Your task to perform on an android device: change your default location settings in chrome Image 0: 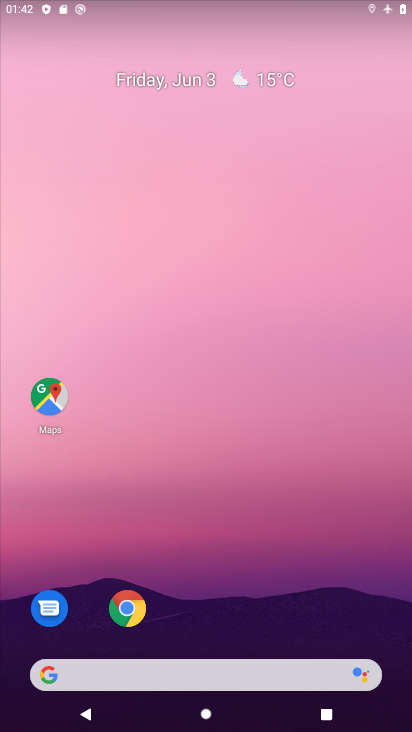
Step 0: drag from (201, 607) to (167, 133)
Your task to perform on an android device: change your default location settings in chrome Image 1: 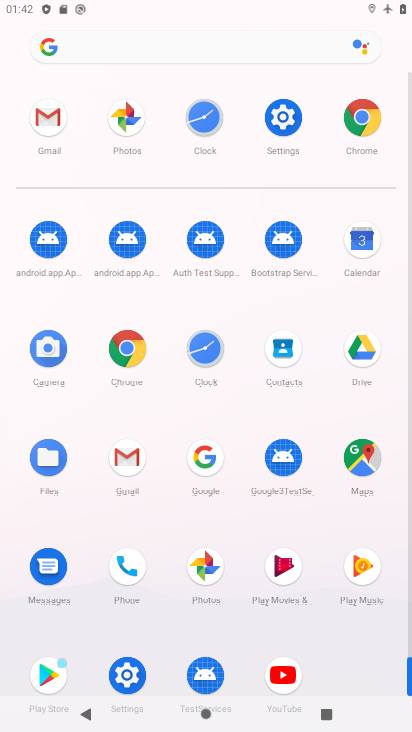
Step 1: click (134, 343)
Your task to perform on an android device: change your default location settings in chrome Image 2: 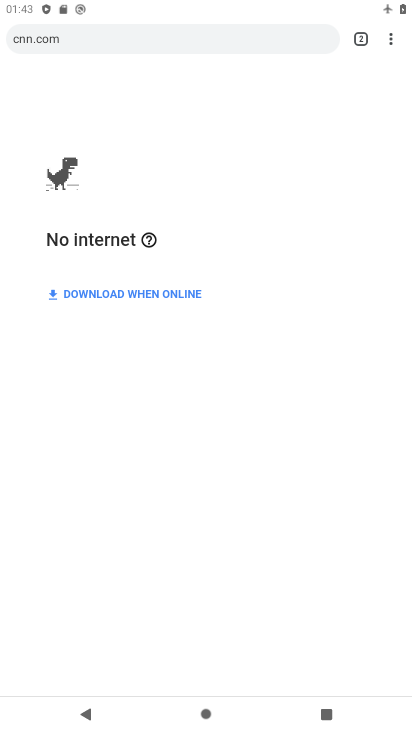
Step 2: drag from (387, 37) to (273, 477)
Your task to perform on an android device: change your default location settings in chrome Image 3: 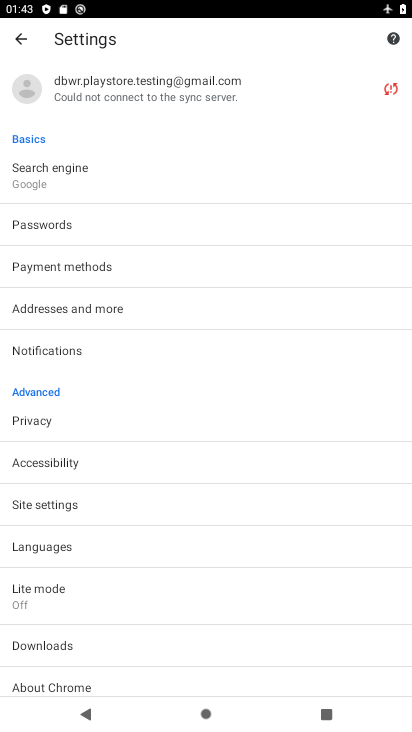
Step 3: click (89, 184)
Your task to perform on an android device: change your default location settings in chrome Image 4: 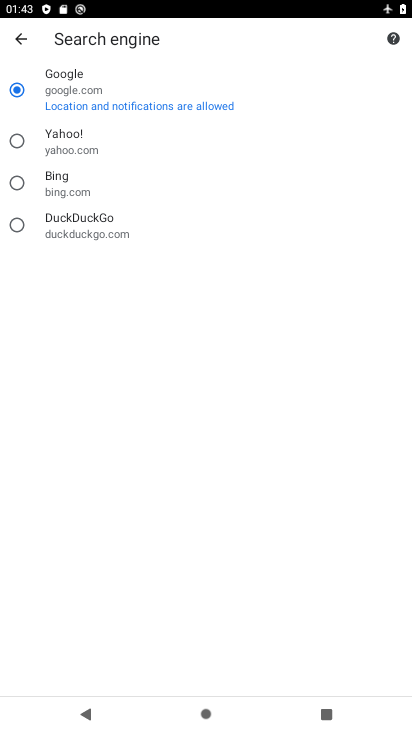
Step 4: click (22, 42)
Your task to perform on an android device: change your default location settings in chrome Image 5: 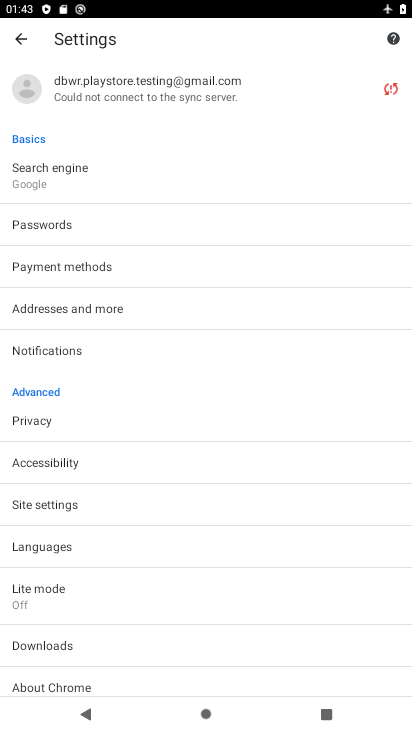
Step 5: drag from (117, 568) to (169, 298)
Your task to perform on an android device: change your default location settings in chrome Image 6: 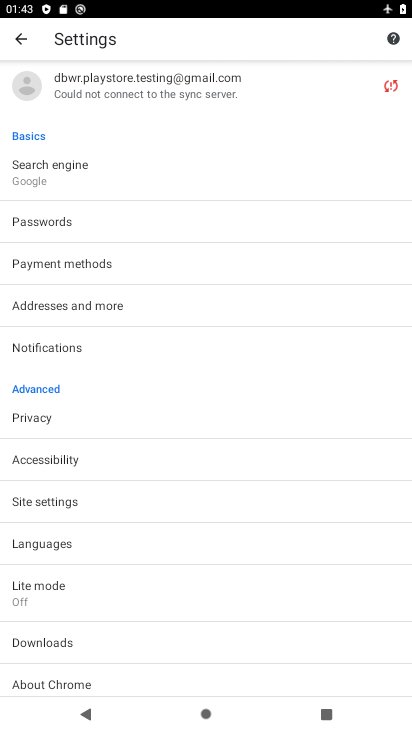
Step 6: click (71, 502)
Your task to perform on an android device: change your default location settings in chrome Image 7: 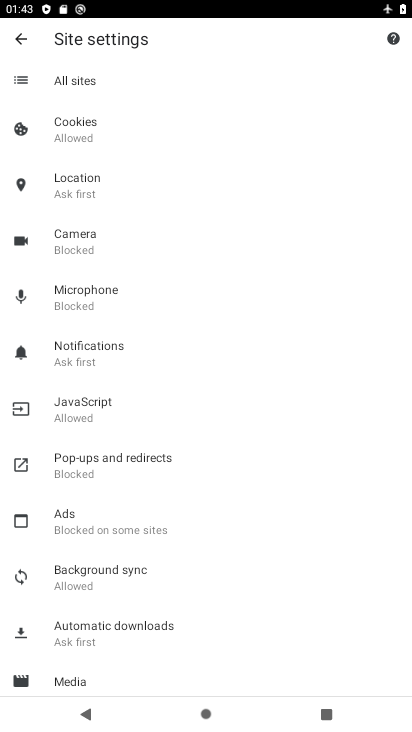
Step 7: click (88, 174)
Your task to perform on an android device: change your default location settings in chrome Image 8: 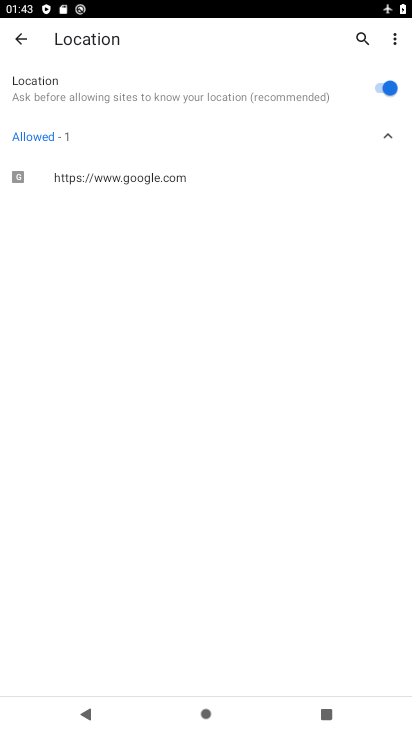
Step 8: click (366, 95)
Your task to perform on an android device: change your default location settings in chrome Image 9: 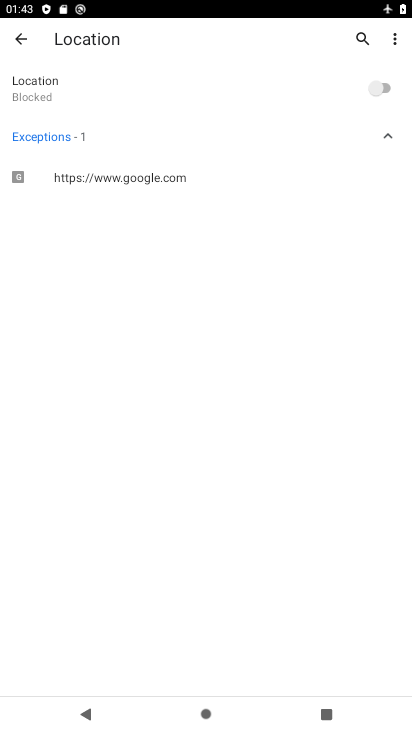
Step 9: task complete